Your task to perform on an android device: turn on sleep mode Image 0: 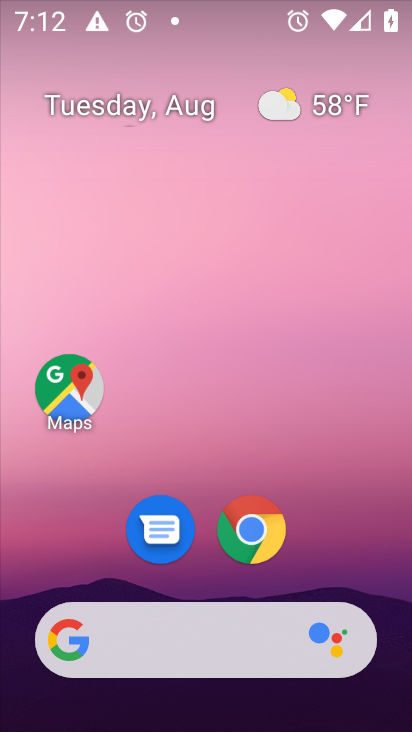
Step 0: press home button
Your task to perform on an android device: turn on sleep mode Image 1: 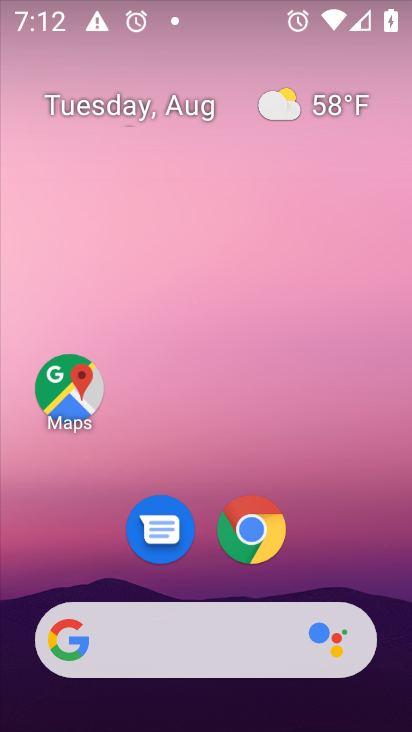
Step 1: drag from (208, 561) to (239, 138)
Your task to perform on an android device: turn on sleep mode Image 2: 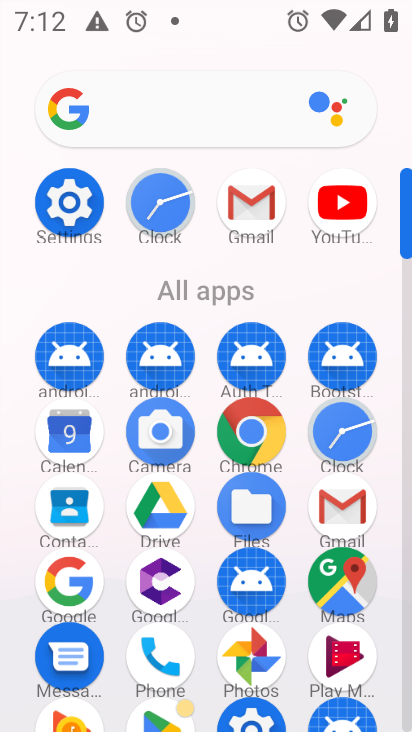
Step 2: click (59, 207)
Your task to perform on an android device: turn on sleep mode Image 3: 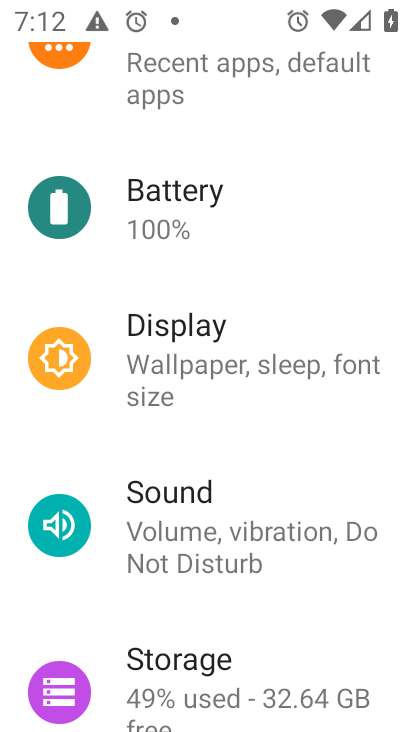
Step 3: click (170, 375)
Your task to perform on an android device: turn on sleep mode Image 4: 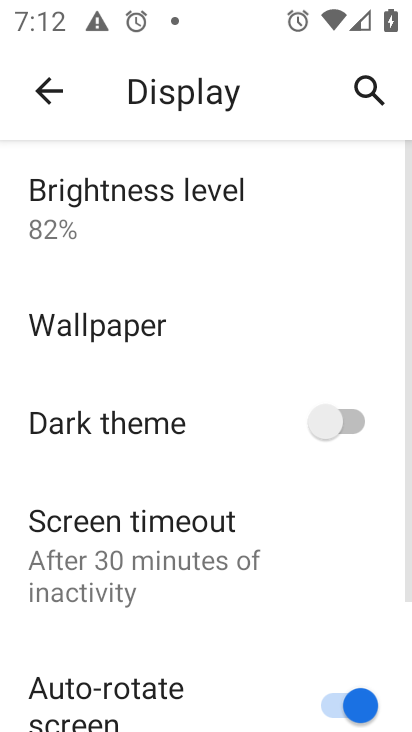
Step 4: task complete